Your task to perform on an android device: install app "Grab" Image 0: 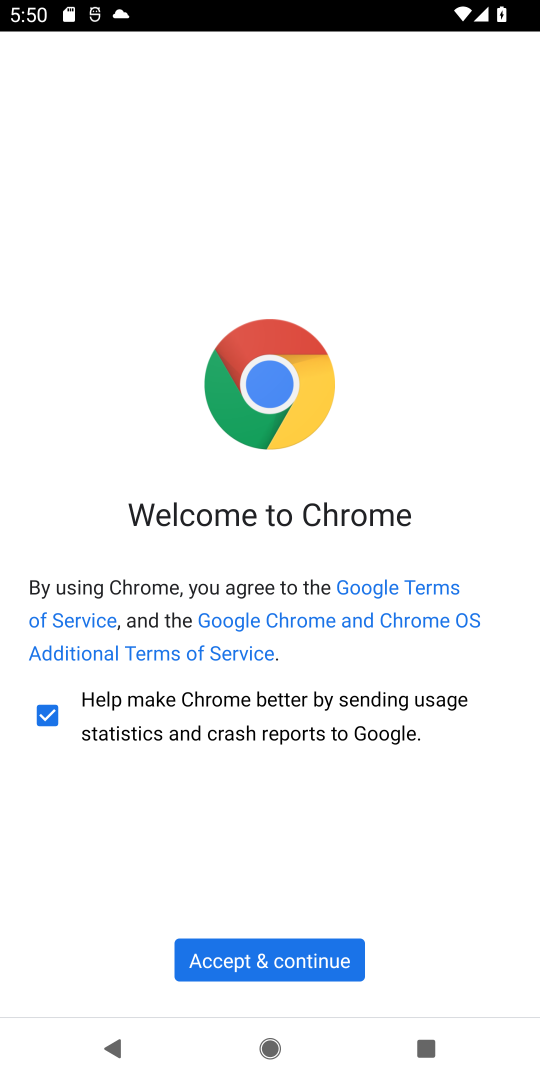
Step 0: press home button
Your task to perform on an android device: install app "Grab" Image 1: 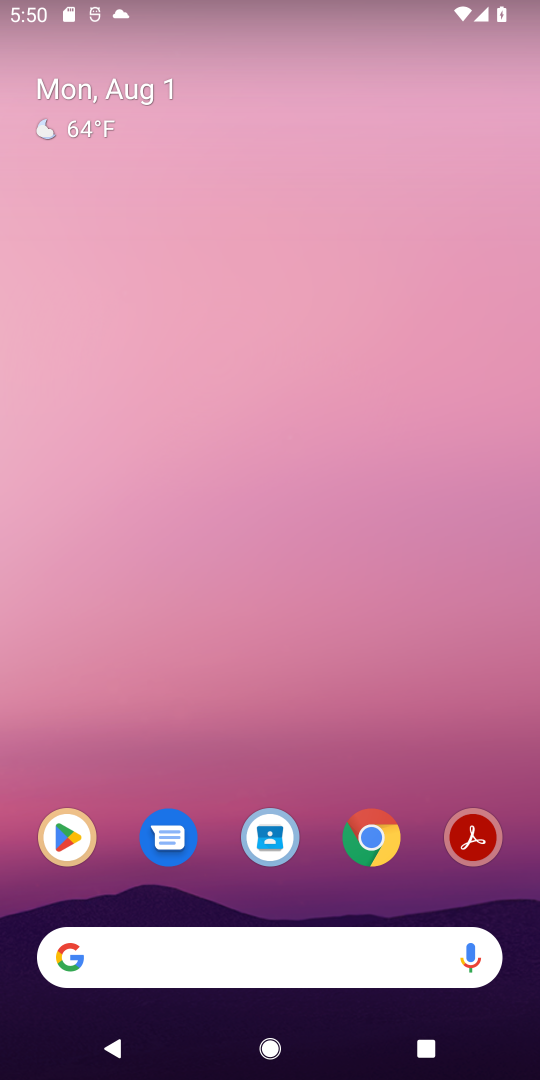
Step 1: click (66, 828)
Your task to perform on an android device: install app "Grab" Image 2: 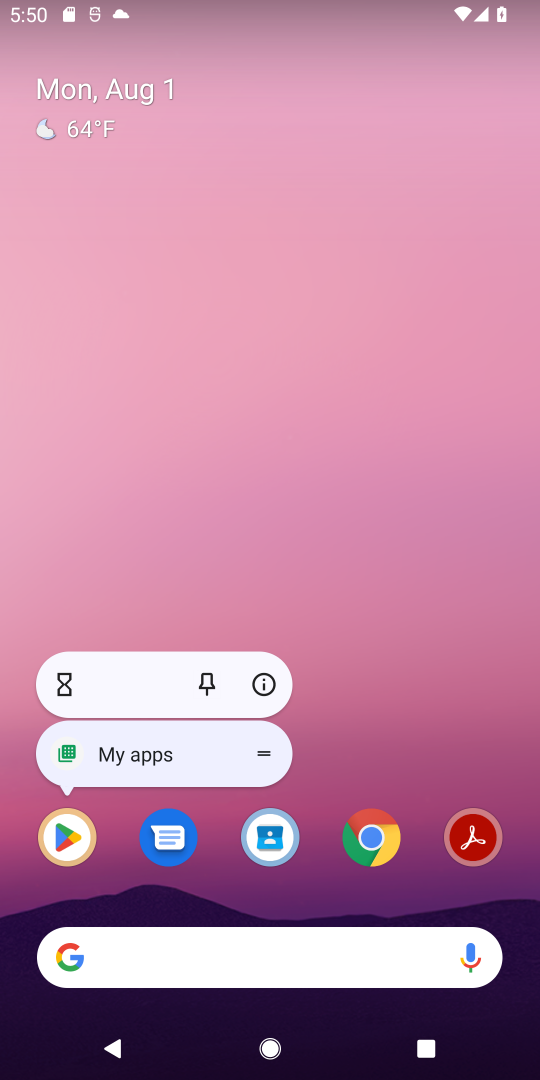
Step 2: click (66, 828)
Your task to perform on an android device: install app "Grab" Image 3: 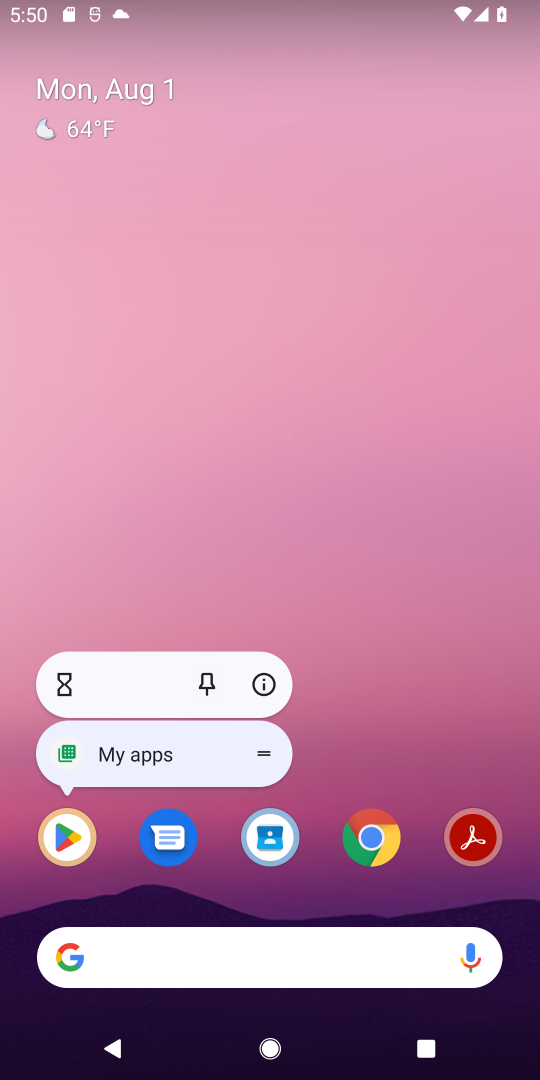
Step 3: click (66, 828)
Your task to perform on an android device: install app "Grab" Image 4: 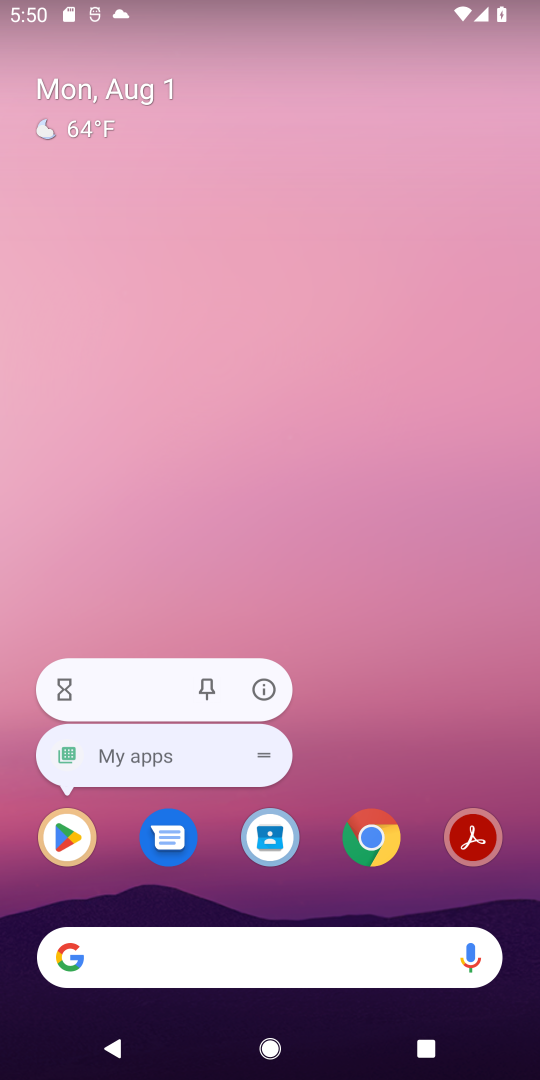
Step 4: click (66, 828)
Your task to perform on an android device: install app "Grab" Image 5: 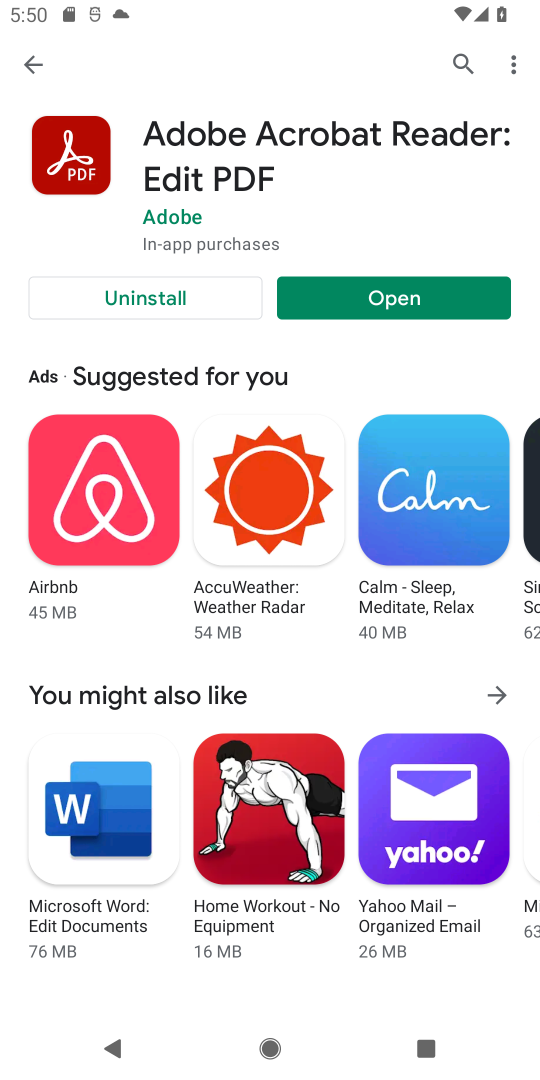
Step 5: click (451, 58)
Your task to perform on an android device: install app "Grab" Image 6: 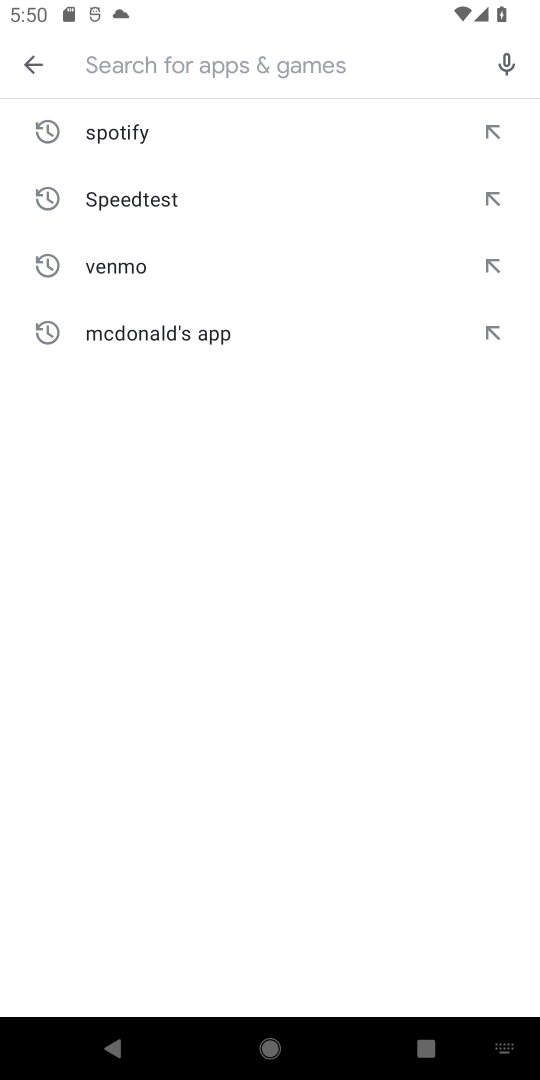
Step 6: type "Grab"
Your task to perform on an android device: install app "Grab" Image 7: 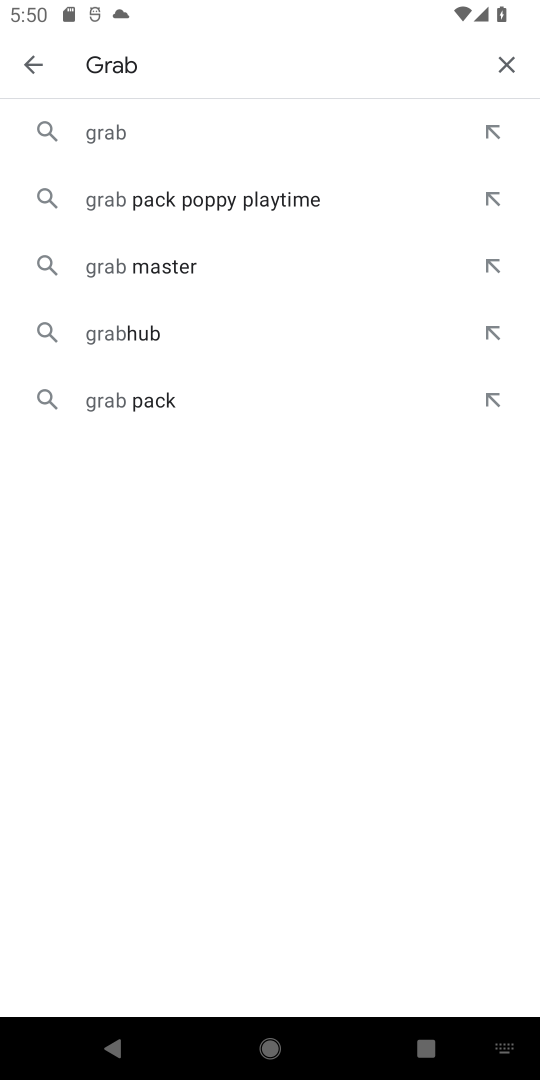
Step 7: click (206, 125)
Your task to perform on an android device: install app "Grab" Image 8: 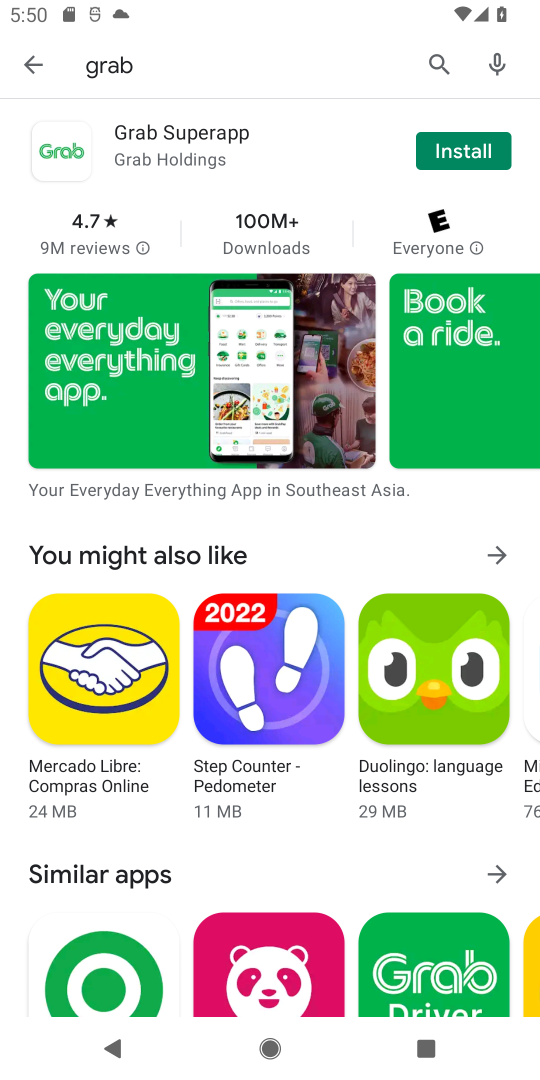
Step 8: click (475, 147)
Your task to perform on an android device: install app "Grab" Image 9: 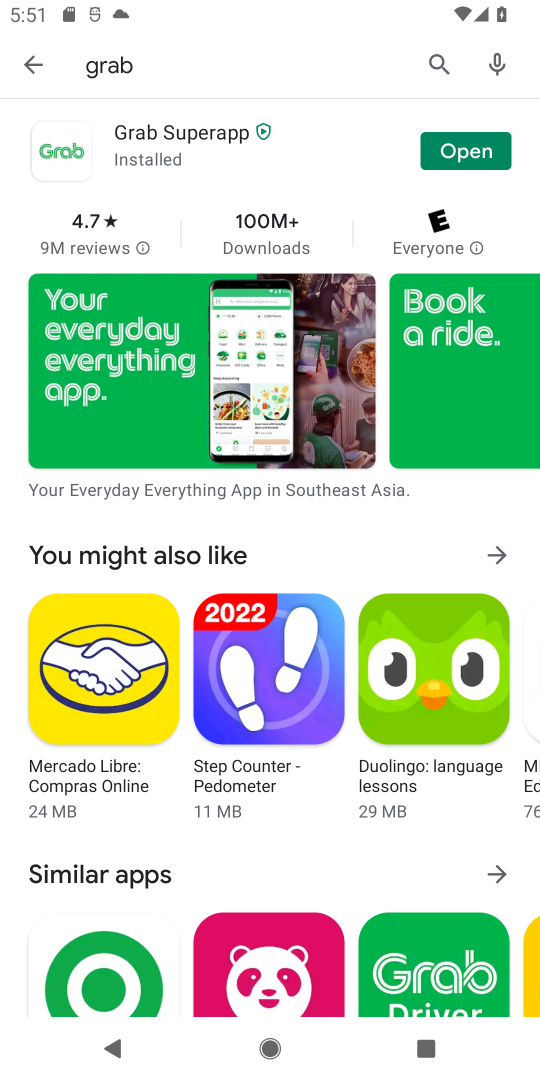
Step 9: task complete